Your task to perform on an android device: Search for seafood restaurants on Google Maps Image 0: 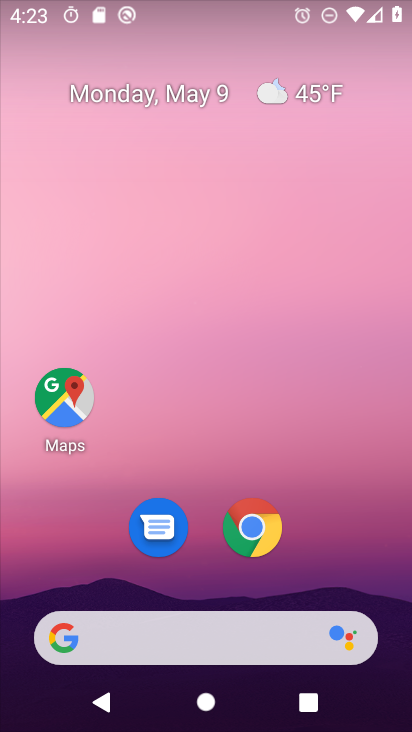
Step 0: click (60, 379)
Your task to perform on an android device: Search for seafood restaurants on Google Maps Image 1: 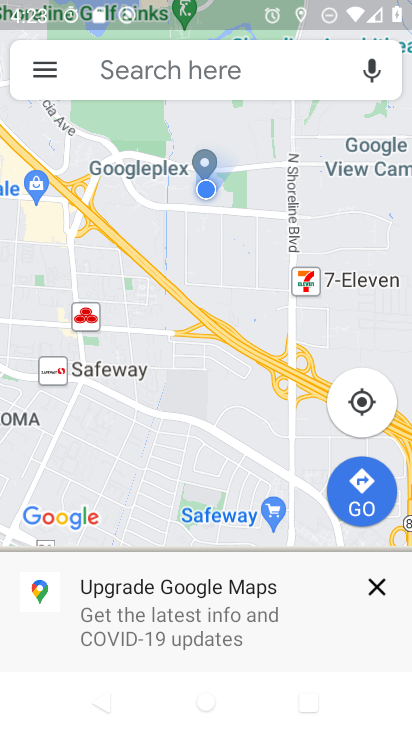
Step 1: click (201, 72)
Your task to perform on an android device: Search for seafood restaurants on Google Maps Image 2: 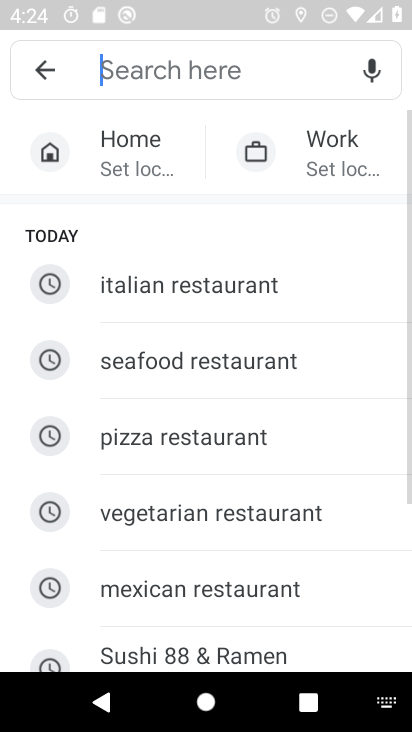
Step 2: click (197, 360)
Your task to perform on an android device: Search for seafood restaurants on Google Maps Image 3: 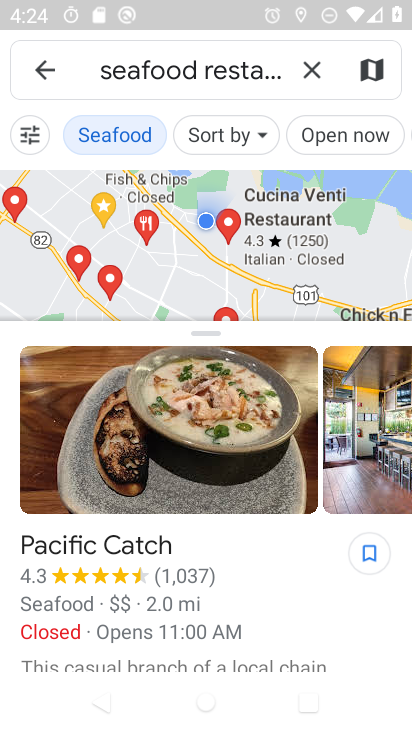
Step 3: task complete